Your task to perform on an android device: Open internet settings Image 0: 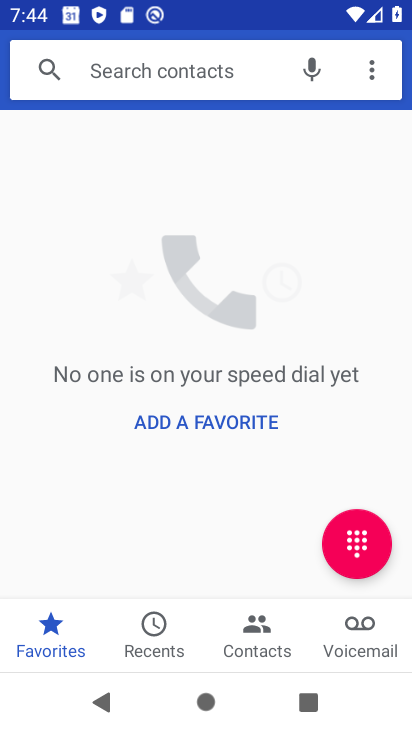
Step 0: press home button
Your task to perform on an android device: Open internet settings Image 1: 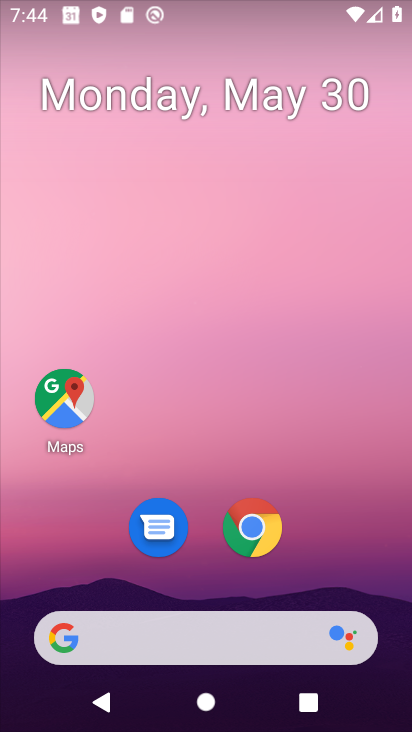
Step 1: drag from (211, 599) to (327, 69)
Your task to perform on an android device: Open internet settings Image 2: 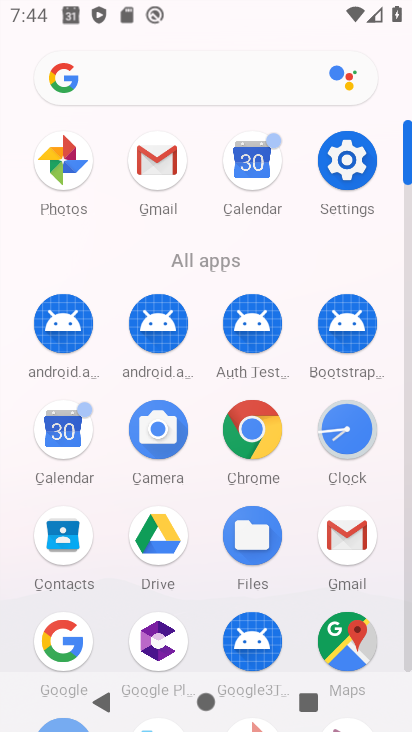
Step 2: click (346, 159)
Your task to perform on an android device: Open internet settings Image 3: 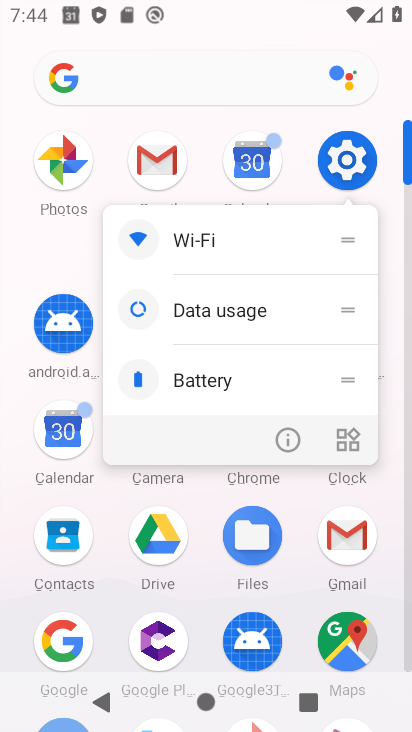
Step 3: click (354, 152)
Your task to perform on an android device: Open internet settings Image 4: 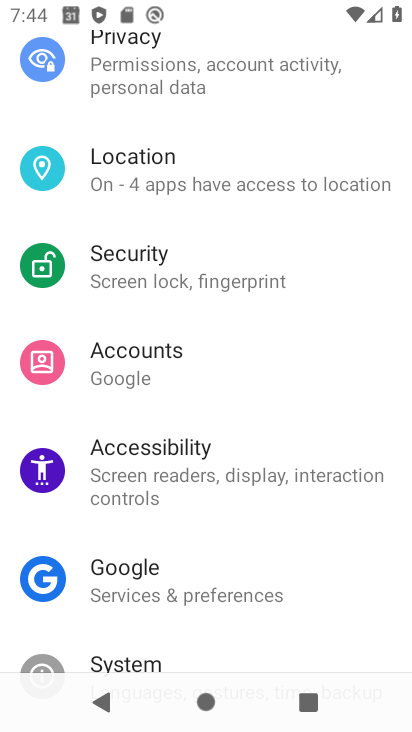
Step 4: drag from (283, 224) to (257, 584)
Your task to perform on an android device: Open internet settings Image 5: 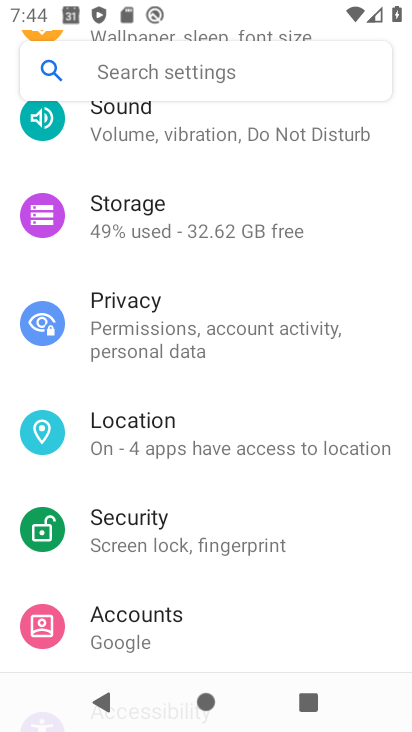
Step 5: drag from (207, 216) to (136, 591)
Your task to perform on an android device: Open internet settings Image 6: 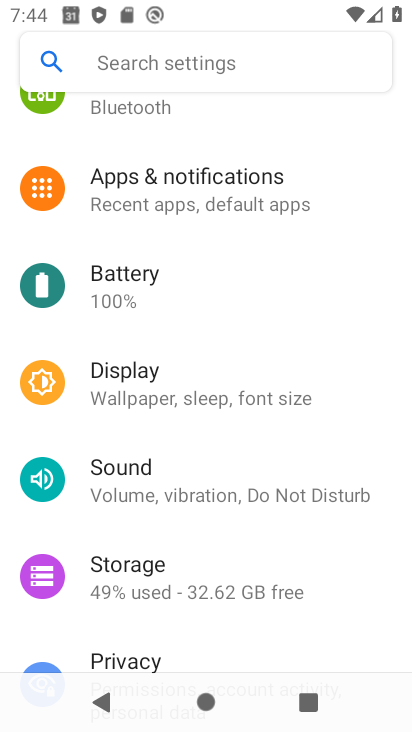
Step 6: drag from (252, 244) to (247, 555)
Your task to perform on an android device: Open internet settings Image 7: 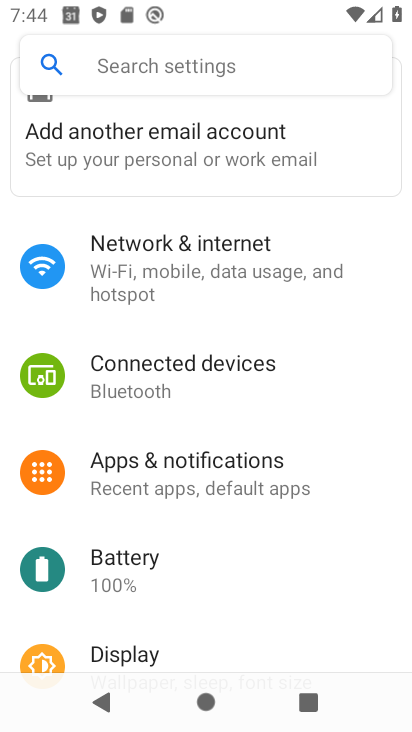
Step 7: click (238, 277)
Your task to perform on an android device: Open internet settings Image 8: 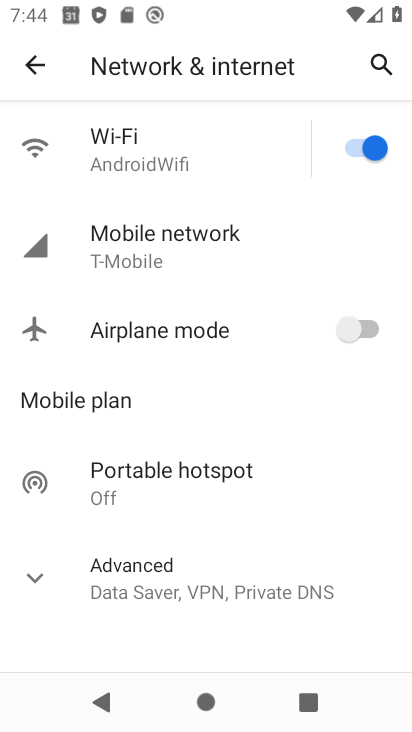
Step 8: click (105, 239)
Your task to perform on an android device: Open internet settings Image 9: 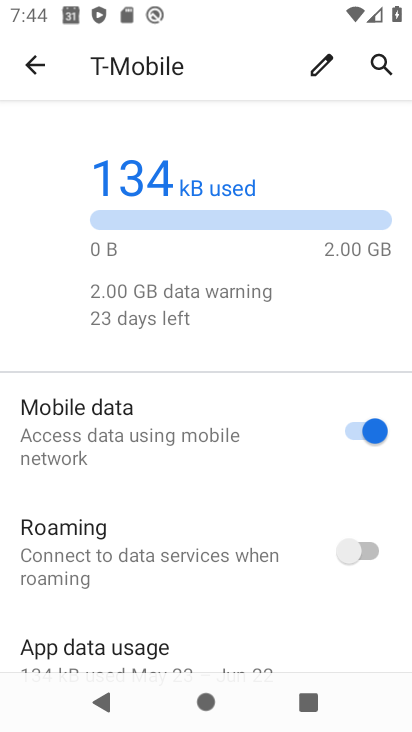
Step 9: task complete